Your task to perform on an android device: change text size in settings app Image 0: 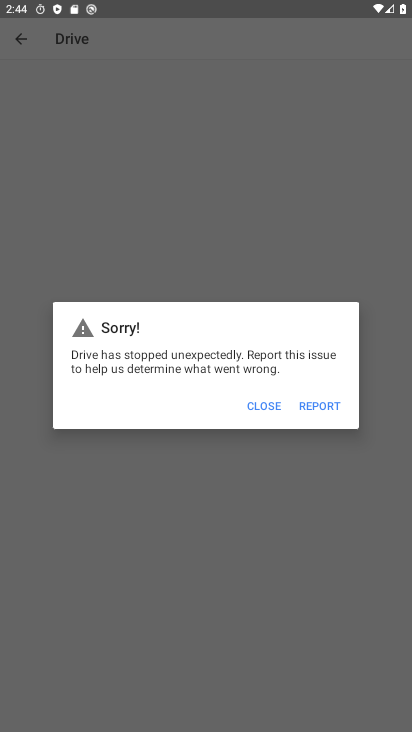
Step 0: press home button
Your task to perform on an android device: change text size in settings app Image 1: 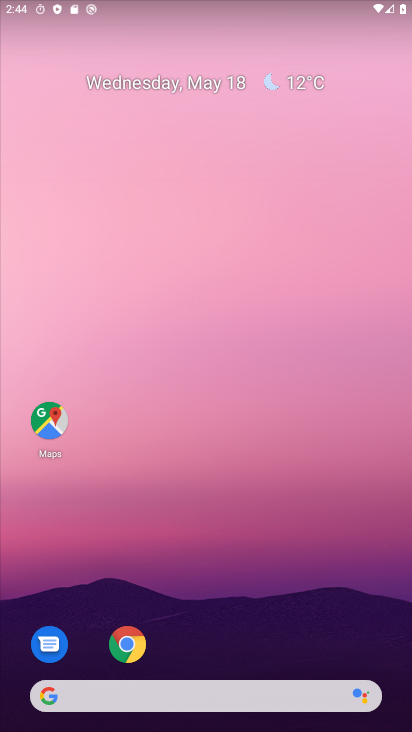
Step 1: drag from (398, 461) to (356, 162)
Your task to perform on an android device: change text size in settings app Image 2: 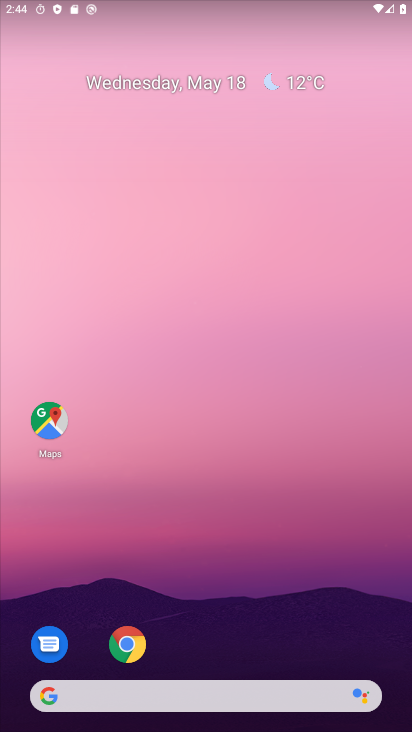
Step 2: drag from (399, 704) to (344, 182)
Your task to perform on an android device: change text size in settings app Image 3: 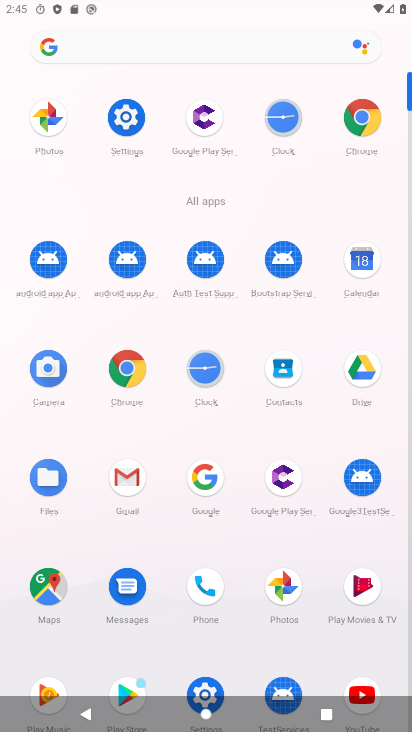
Step 3: click (111, 124)
Your task to perform on an android device: change text size in settings app Image 4: 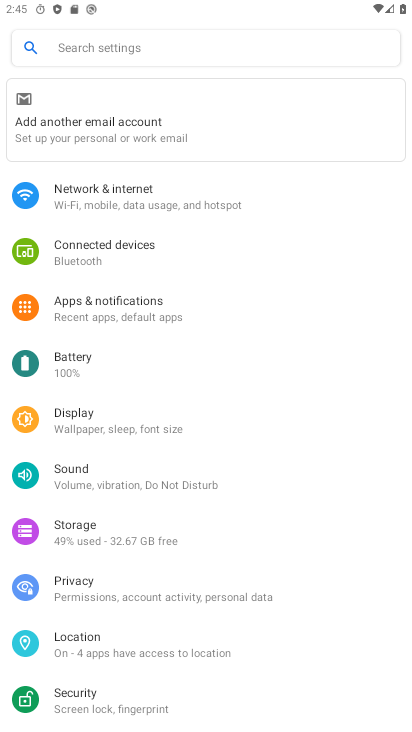
Step 4: click (115, 423)
Your task to perform on an android device: change text size in settings app Image 5: 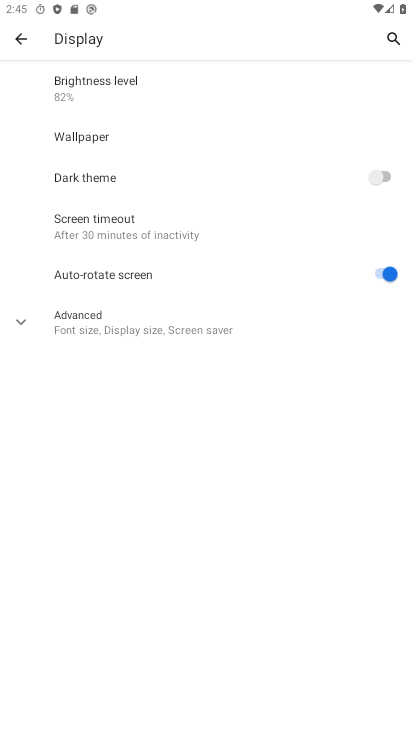
Step 5: click (87, 311)
Your task to perform on an android device: change text size in settings app Image 6: 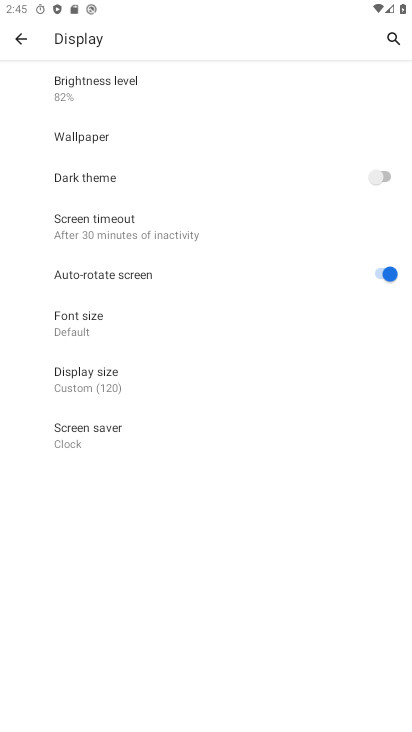
Step 6: click (80, 308)
Your task to perform on an android device: change text size in settings app Image 7: 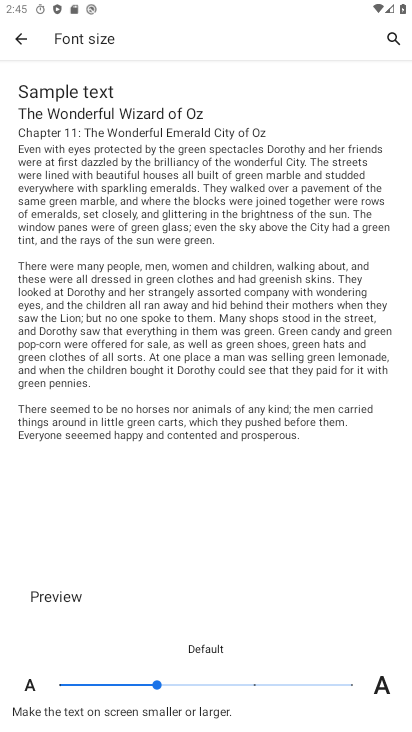
Step 7: click (233, 688)
Your task to perform on an android device: change text size in settings app Image 8: 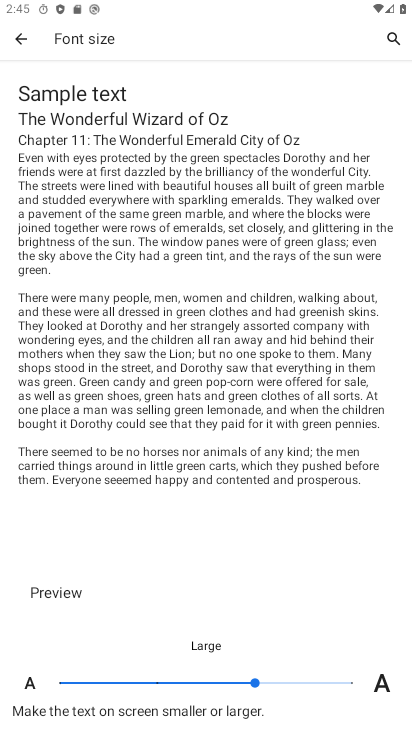
Step 8: click (193, 682)
Your task to perform on an android device: change text size in settings app Image 9: 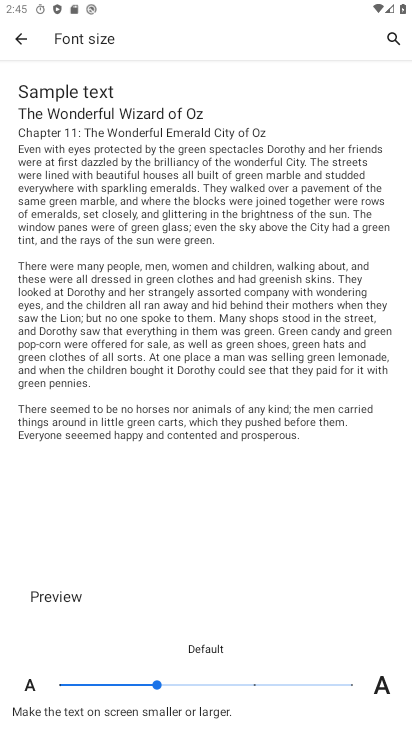
Step 9: click (193, 683)
Your task to perform on an android device: change text size in settings app Image 10: 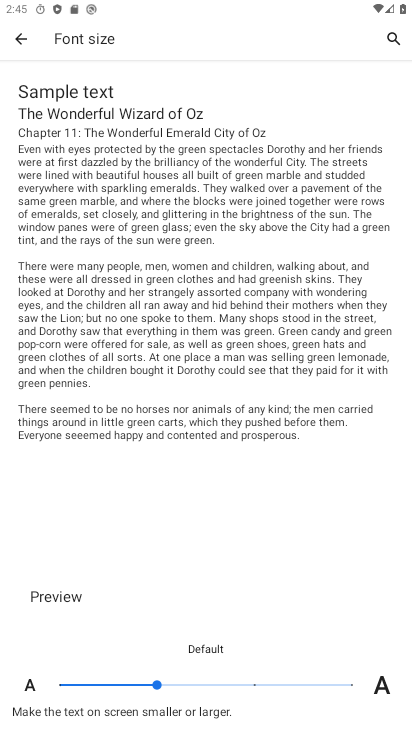
Step 10: task complete